Your task to perform on an android device: empty trash in the gmail app Image 0: 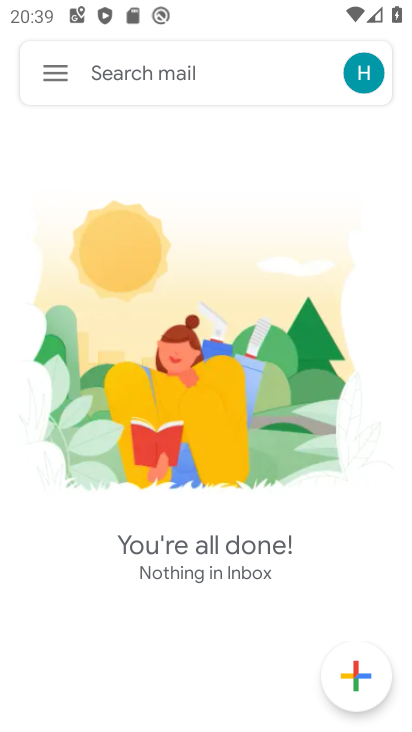
Step 0: click (60, 74)
Your task to perform on an android device: empty trash in the gmail app Image 1: 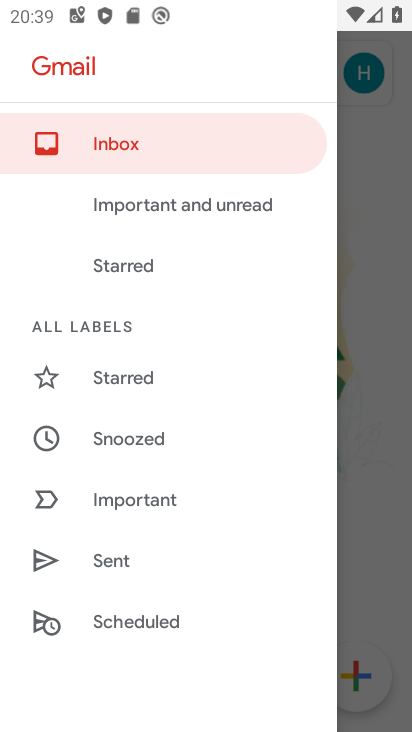
Step 1: drag from (157, 567) to (156, 205)
Your task to perform on an android device: empty trash in the gmail app Image 2: 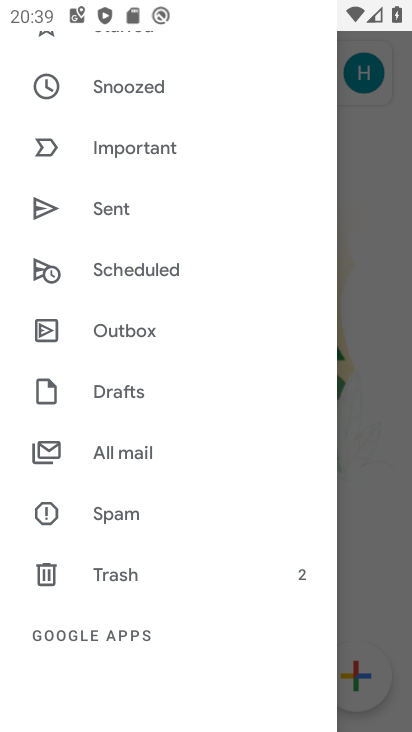
Step 2: click (140, 580)
Your task to perform on an android device: empty trash in the gmail app Image 3: 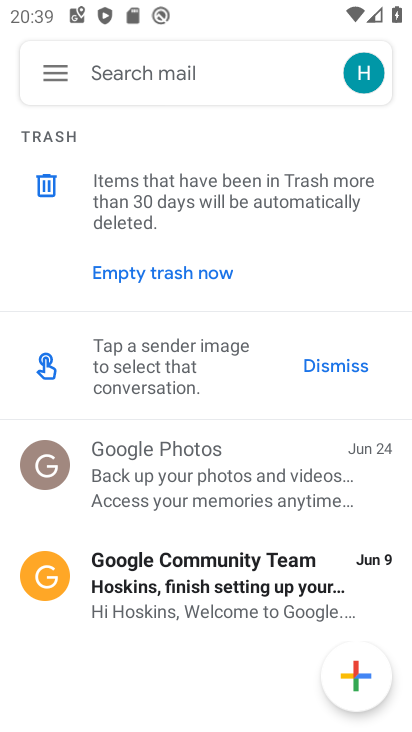
Step 3: click (43, 460)
Your task to perform on an android device: empty trash in the gmail app Image 4: 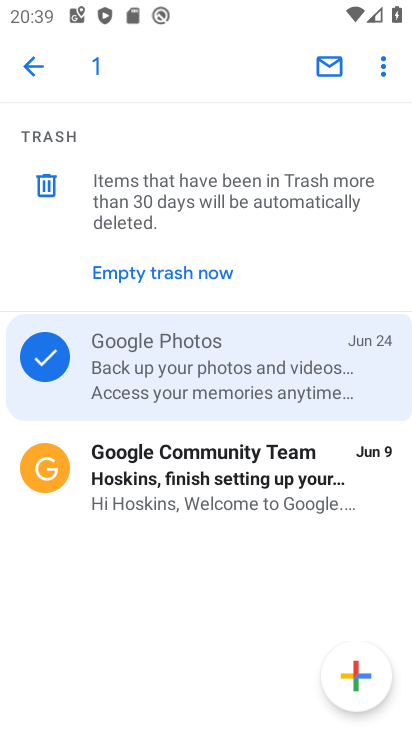
Step 4: click (50, 476)
Your task to perform on an android device: empty trash in the gmail app Image 5: 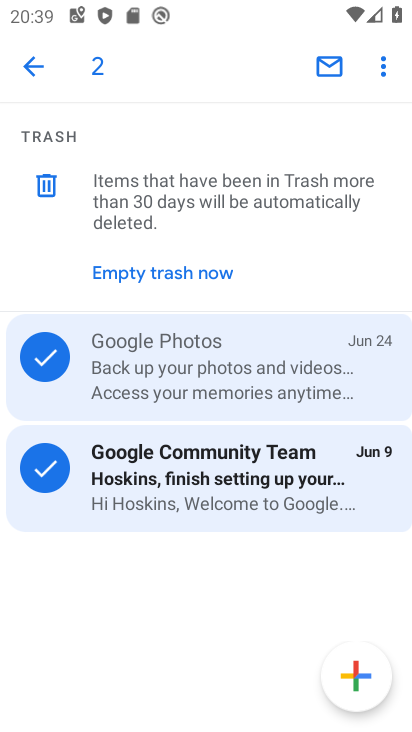
Step 5: click (202, 269)
Your task to perform on an android device: empty trash in the gmail app Image 6: 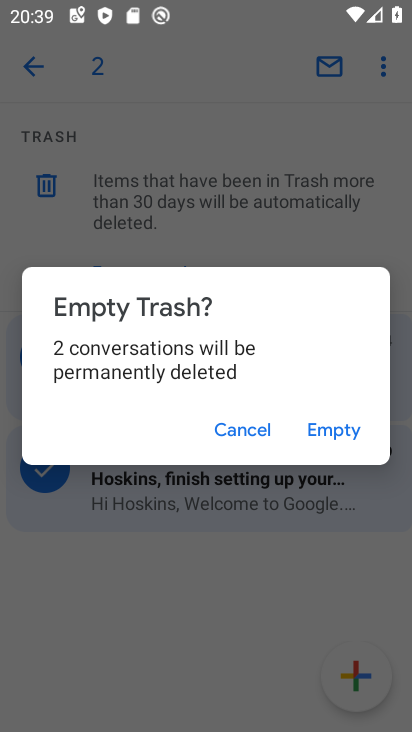
Step 6: click (326, 426)
Your task to perform on an android device: empty trash in the gmail app Image 7: 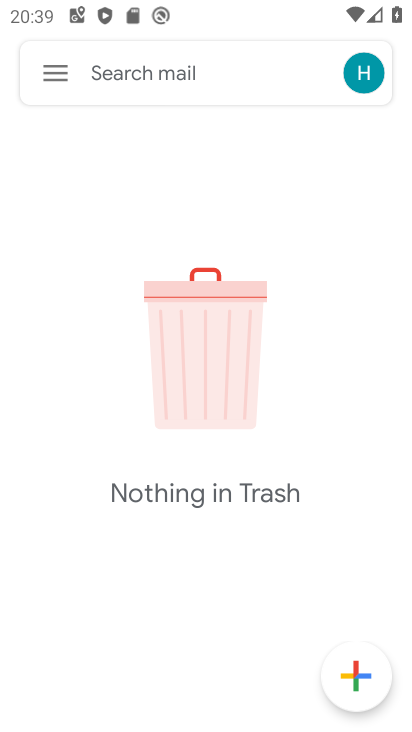
Step 7: task complete